Your task to perform on an android device: Open the web browser Image 0: 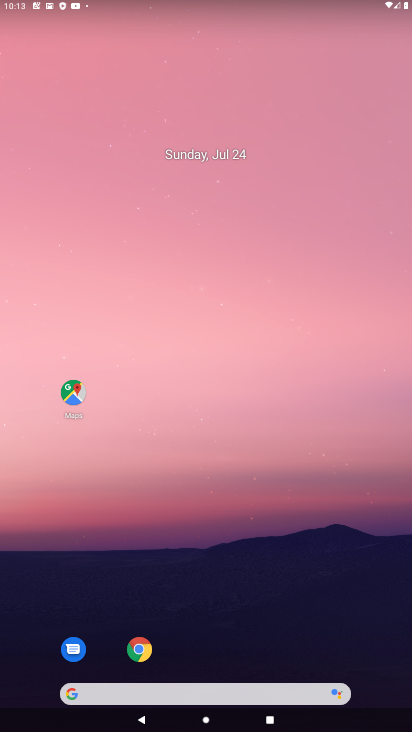
Step 0: drag from (283, 684) to (157, 40)
Your task to perform on an android device: Open the web browser Image 1: 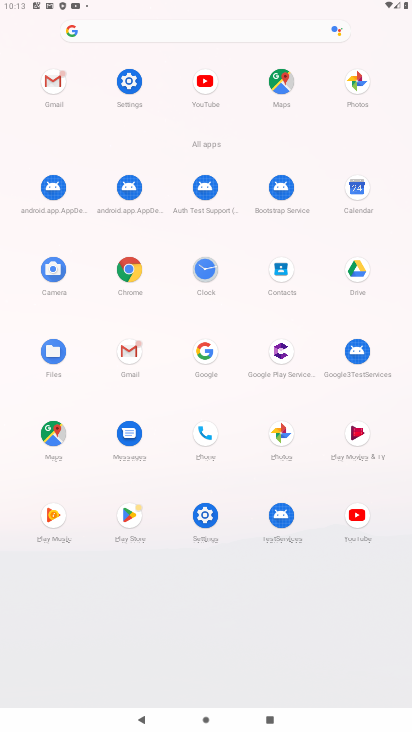
Step 1: click (137, 273)
Your task to perform on an android device: Open the web browser Image 2: 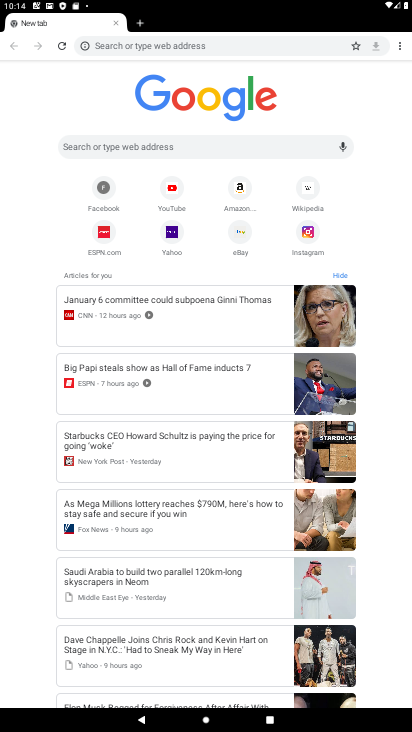
Step 2: task complete